Your task to perform on an android device: Check the weather Image 0: 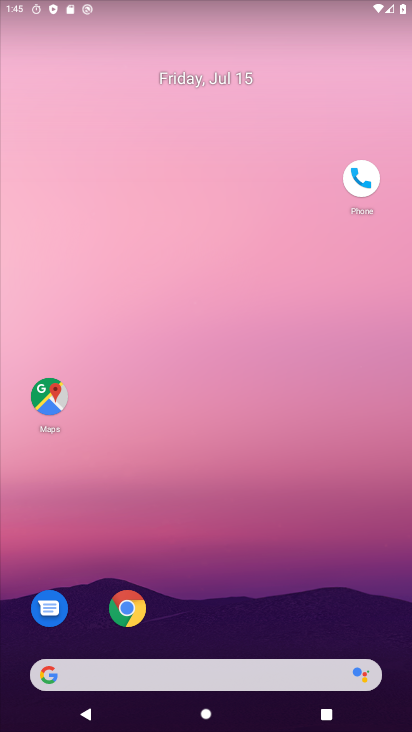
Step 0: drag from (227, 598) to (261, 155)
Your task to perform on an android device: Check the weather Image 1: 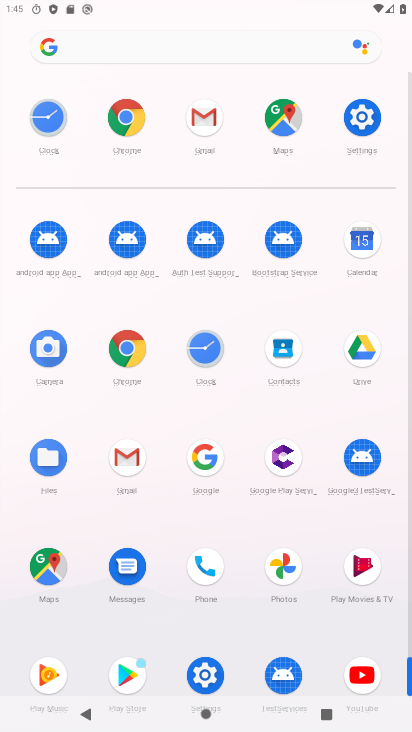
Step 1: click (126, 48)
Your task to perform on an android device: Check the weather Image 2: 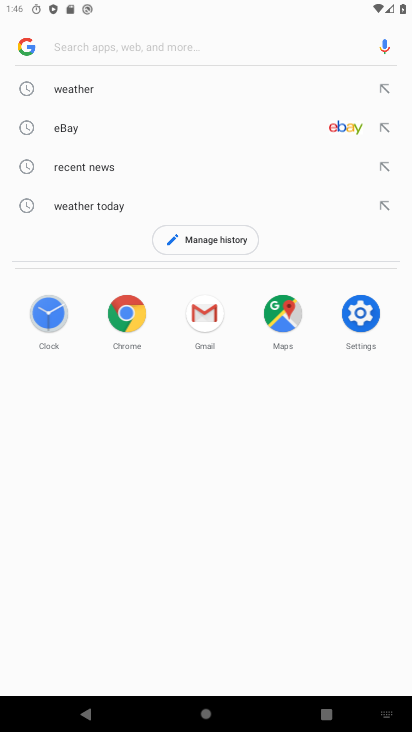
Step 2: type "Check the weather"
Your task to perform on an android device: Check the weather Image 3: 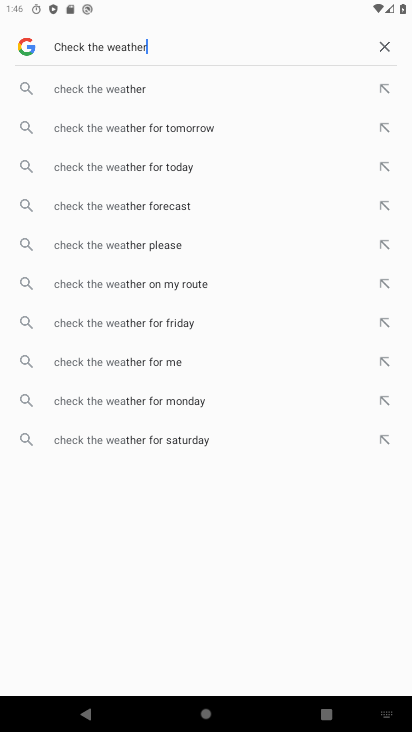
Step 3: type ""
Your task to perform on an android device: Check the weather Image 4: 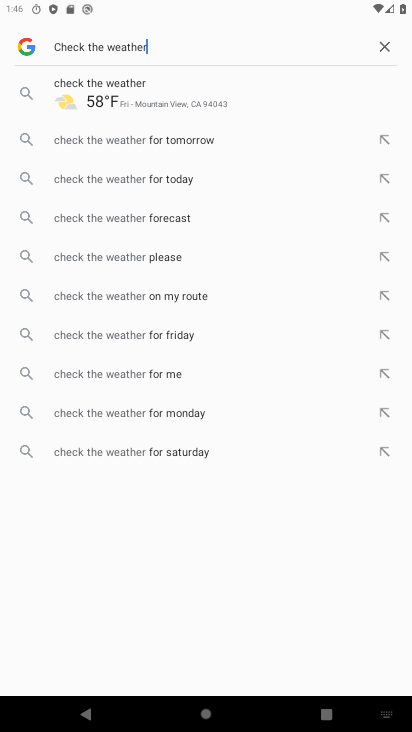
Step 4: click (84, 88)
Your task to perform on an android device: Check the weather Image 5: 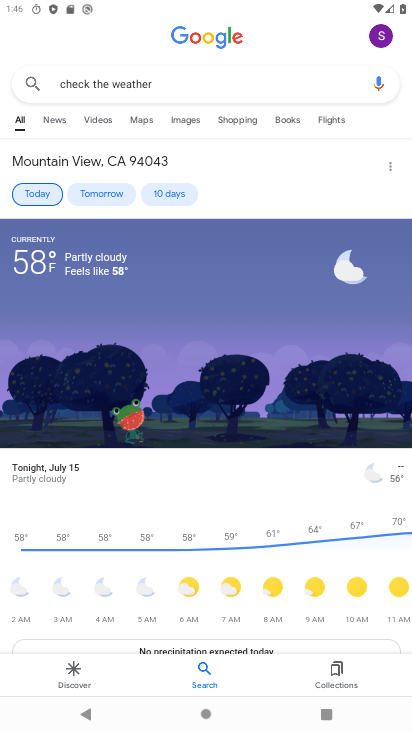
Step 5: task complete